Your task to perform on an android device: Open maps Image 0: 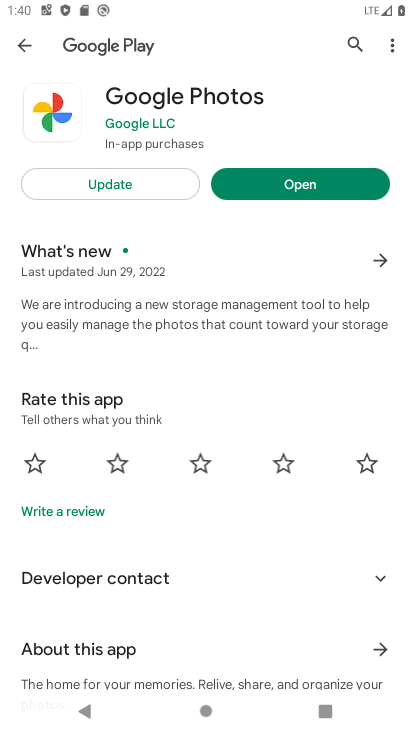
Step 0: press home button
Your task to perform on an android device: Open maps Image 1: 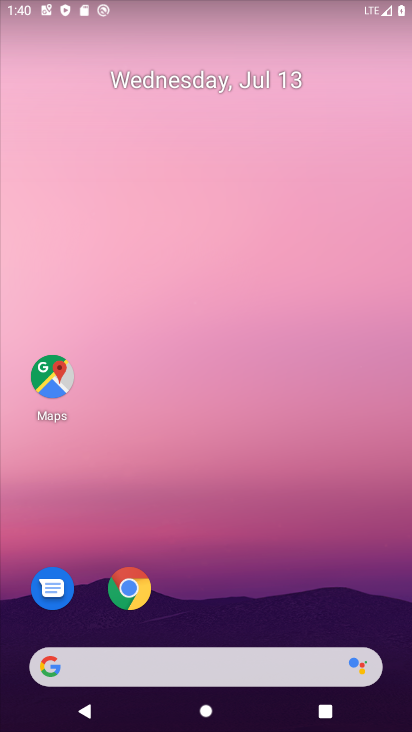
Step 1: click (58, 369)
Your task to perform on an android device: Open maps Image 2: 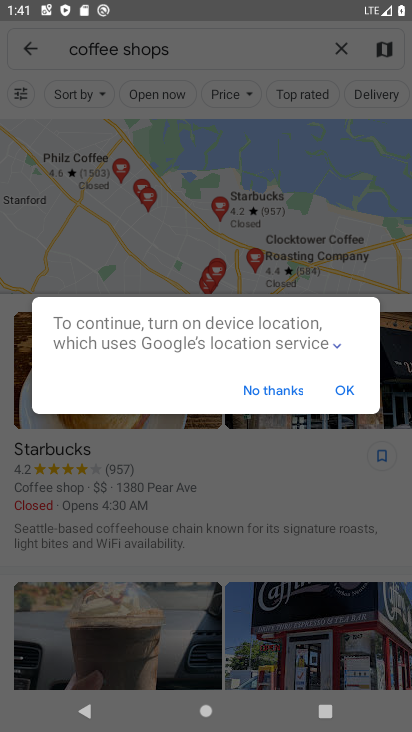
Step 2: click (345, 386)
Your task to perform on an android device: Open maps Image 3: 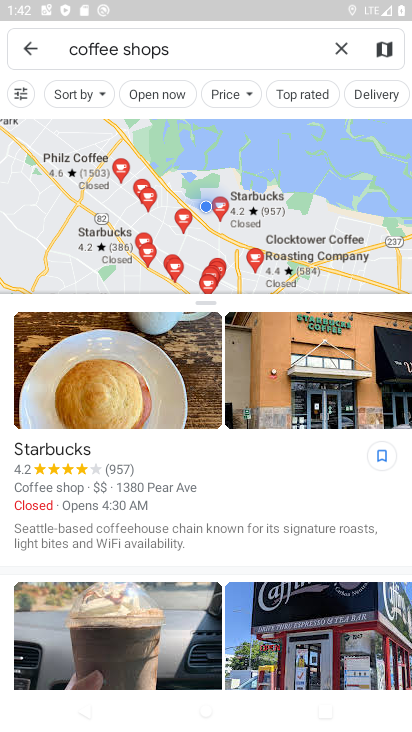
Step 3: click (341, 45)
Your task to perform on an android device: Open maps Image 4: 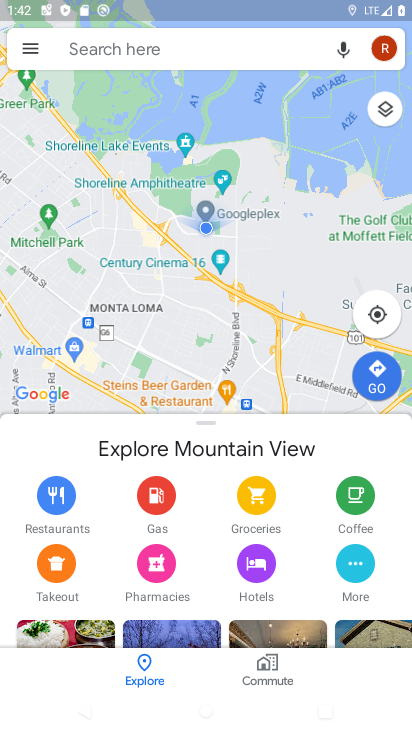
Step 4: task complete